Your task to perform on an android device: turn off location Image 0: 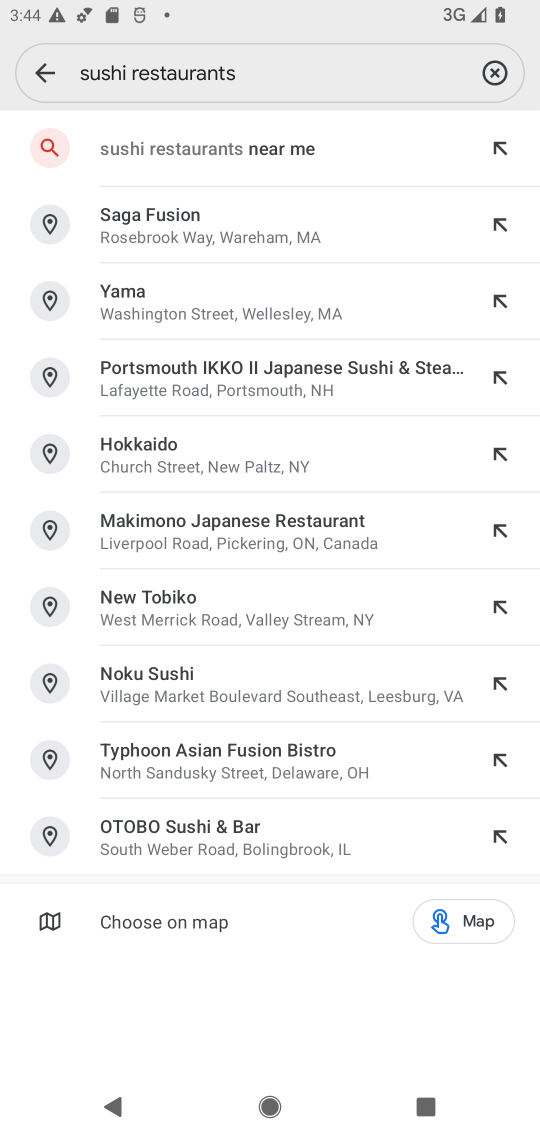
Step 0: press home button
Your task to perform on an android device: turn off location Image 1: 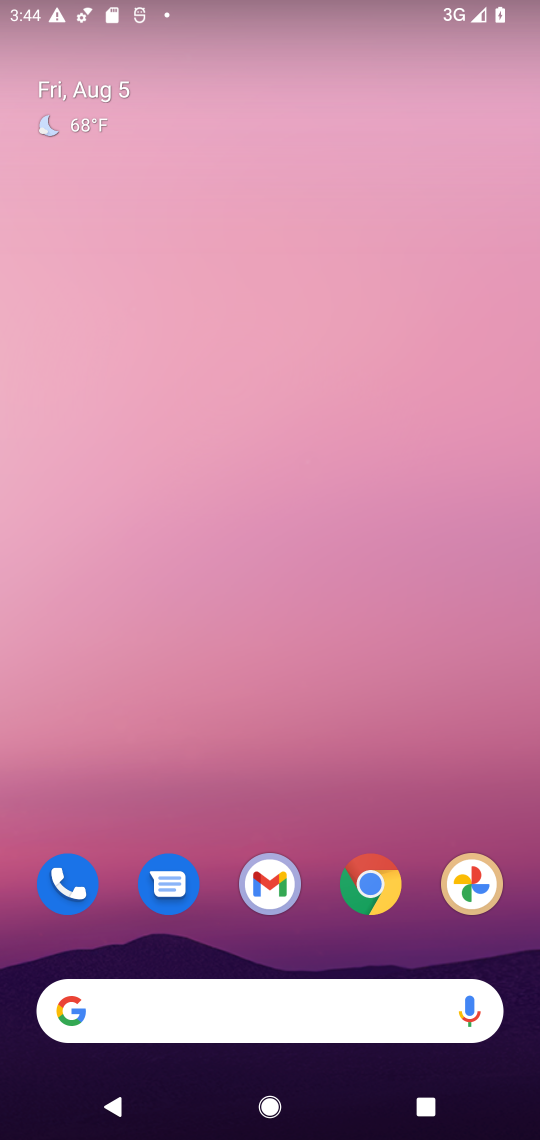
Step 1: drag from (402, 935) to (184, 32)
Your task to perform on an android device: turn off location Image 2: 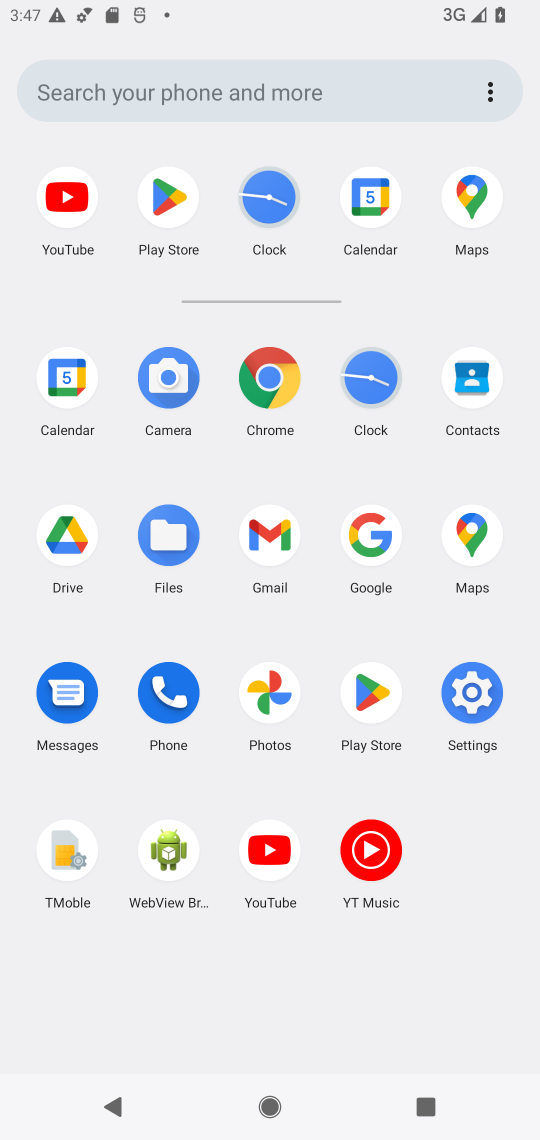
Step 2: click (479, 689)
Your task to perform on an android device: turn off location Image 3: 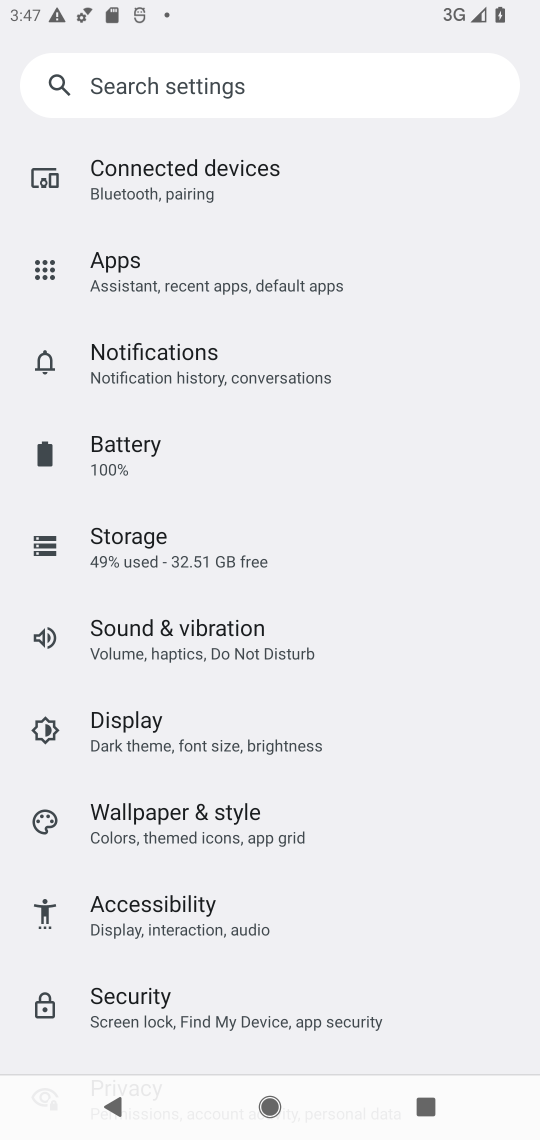
Step 3: drag from (213, 945) to (205, 100)
Your task to perform on an android device: turn off location Image 4: 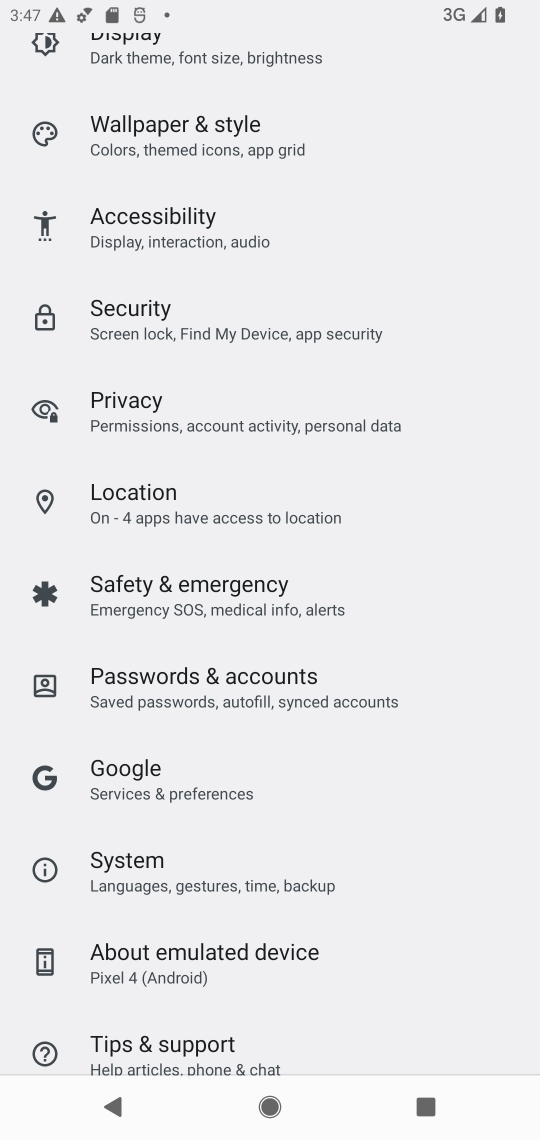
Step 4: click (164, 490)
Your task to perform on an android device: turn off location Image 5: 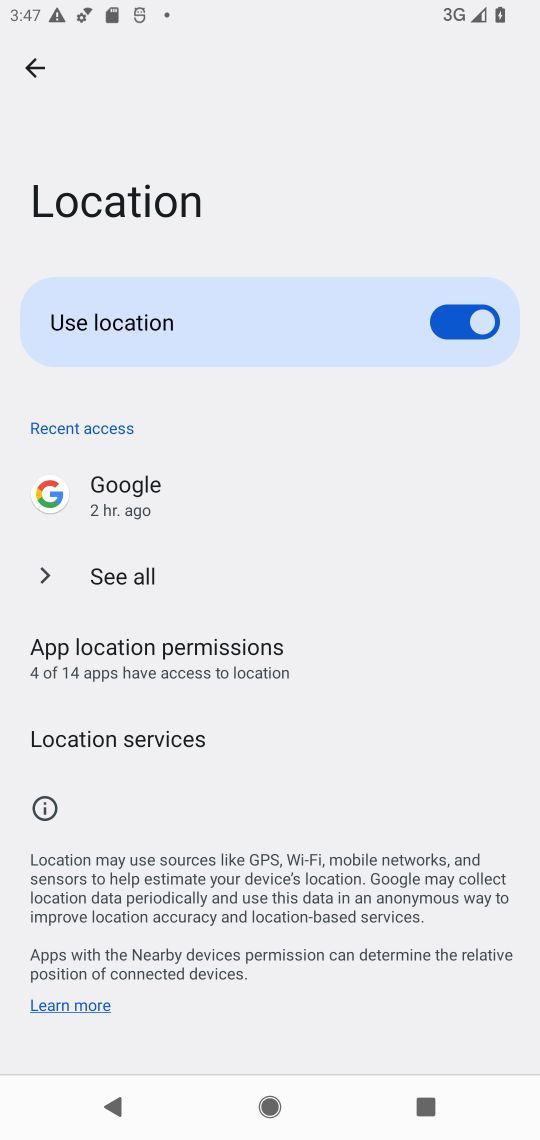
Step 5: click (426, 319)
Your task to perform on an android device: turn off location Image 6: 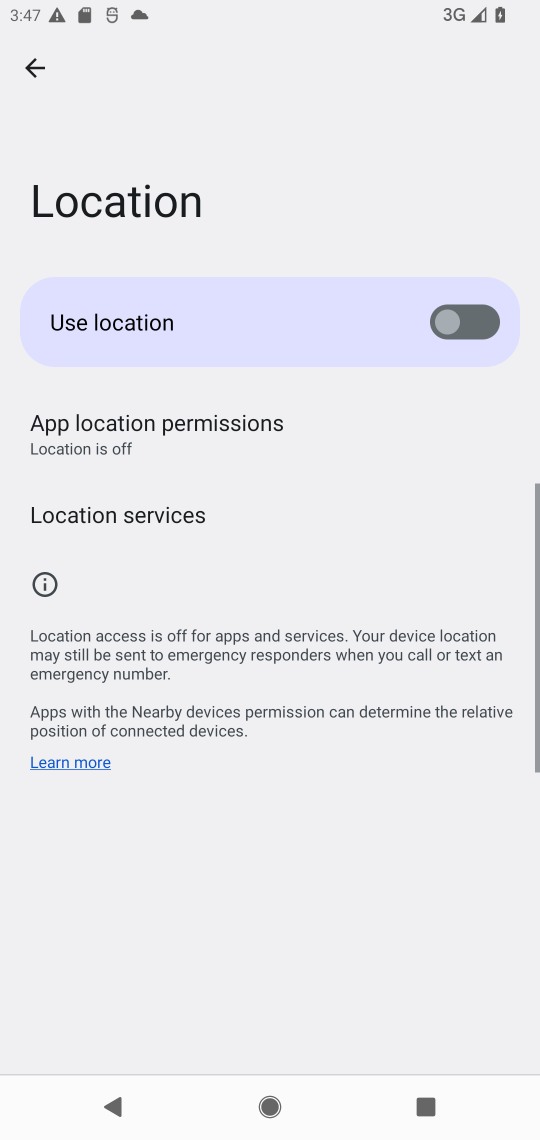
Step 6: task complete